Your task to perform on an android device: turn on data saver in the chrome app Image 0: 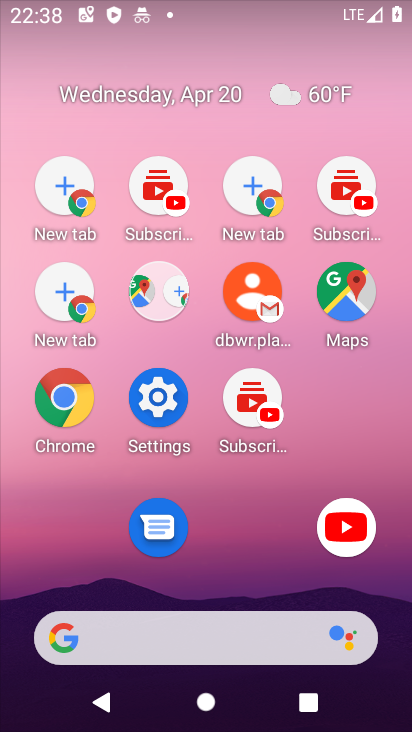
Step 0: drag from (351, 595) to (225, 107)
Your task to perform on an android device: turn on data saver in the chrome app Image 1: 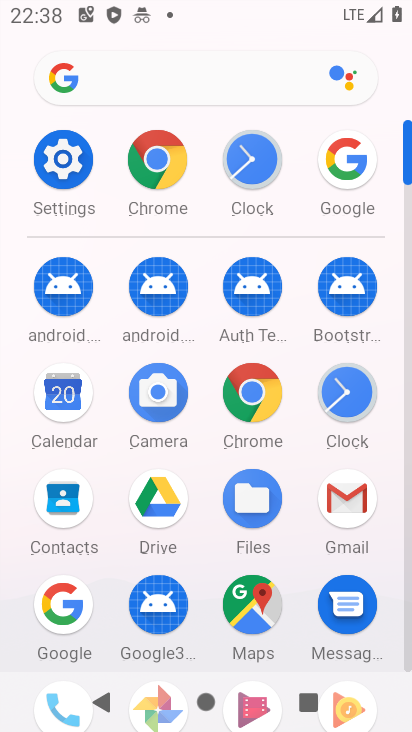
Step 1: click (253, 404)
Your task to perform on an android device: turn on data saver in the chrome app Image 2: 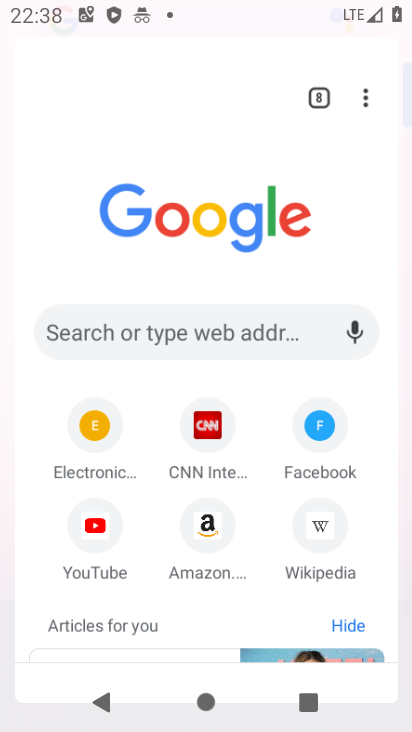
Step 2: click (255, 402)
Your task to perform on an android device: turn on data saver in the chrome app Image 3: 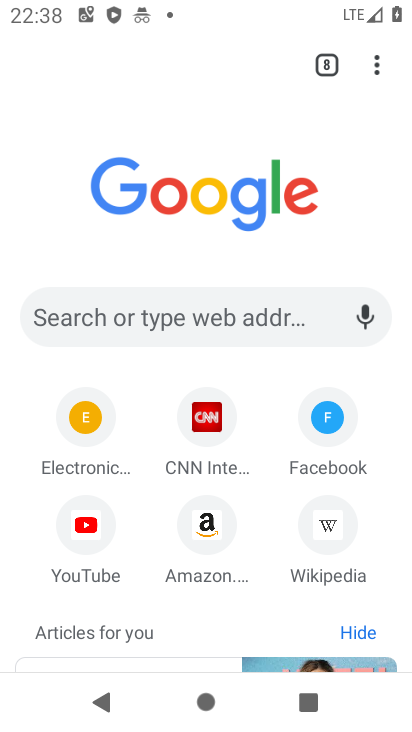
Step 3: click (255, 402)
Your task to perform on an android device: turn on data saver in the chrome app Image 4: 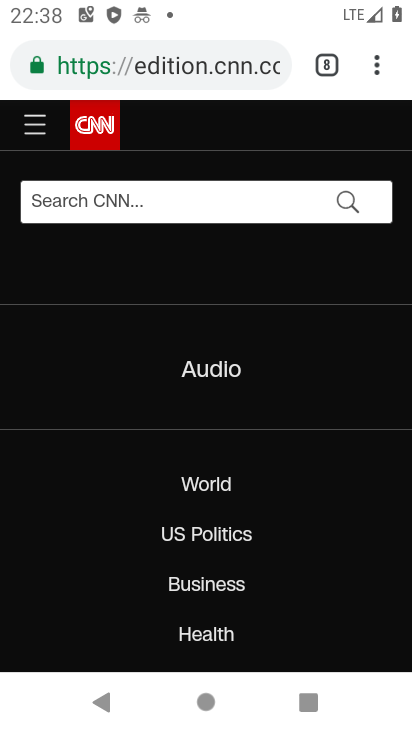
Step 4: drag from (372, 59) to (150, 571)
Your task to perform on an android device: turn on data saver in the chrome app Image 5: 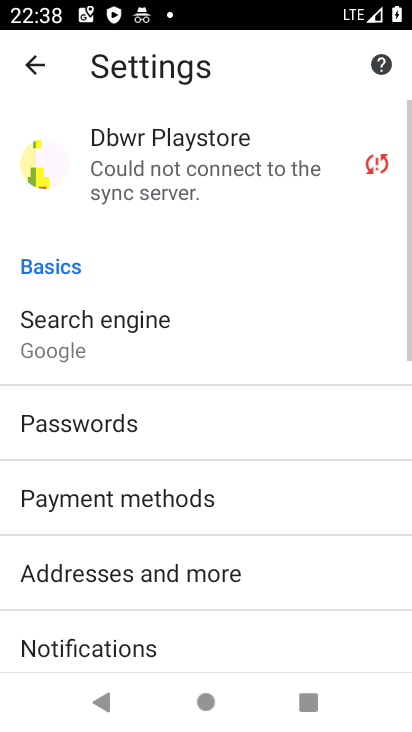
Step 5: drag from (161, 576) to (197, 174)
Your task to perform on an android device: turn on data saver in the chrome app Image 6: 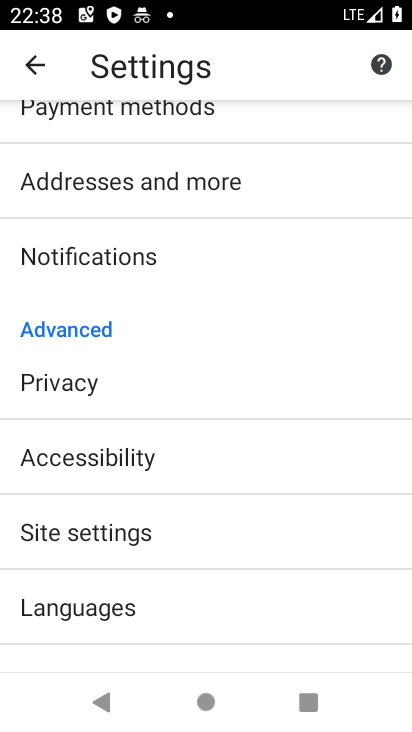
Step 6: drag from (189, 526) to (147, 162)
Your task to perform on an android device: turn on data saver in the chrome app Image 7: 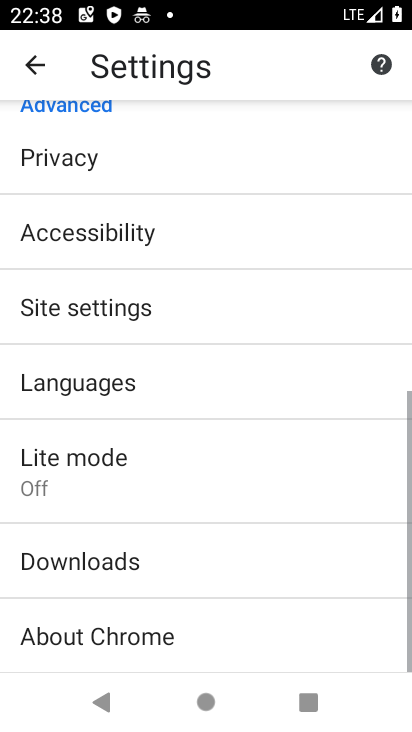
Step 7: click (68, 468)
Your task to perform on an android device: turn on data saver in the chrome app Image 8: 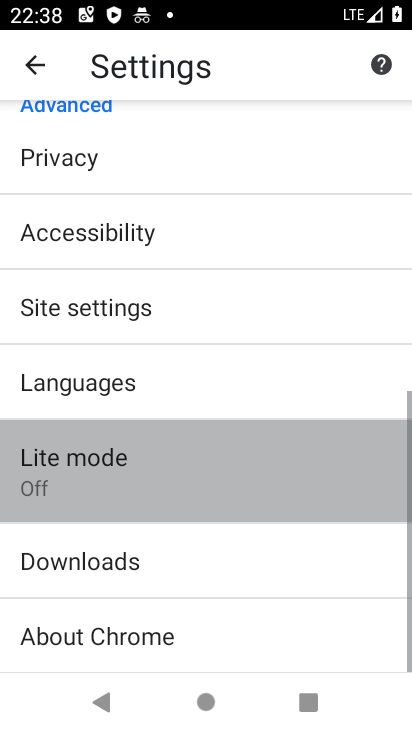
Step 8: click (68, 467)
Your task to perform on an android device: turn on data saver in the chrome app Image 9: 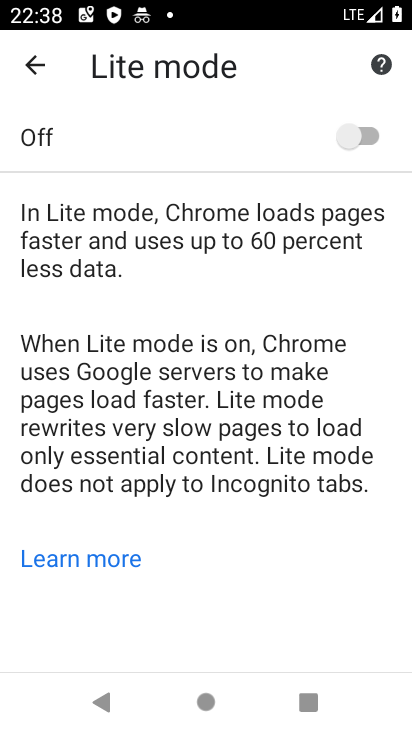
Step 9: click (356, 132)
Your task to perform on an android device: turn on data saver in the chrome app Image 10: 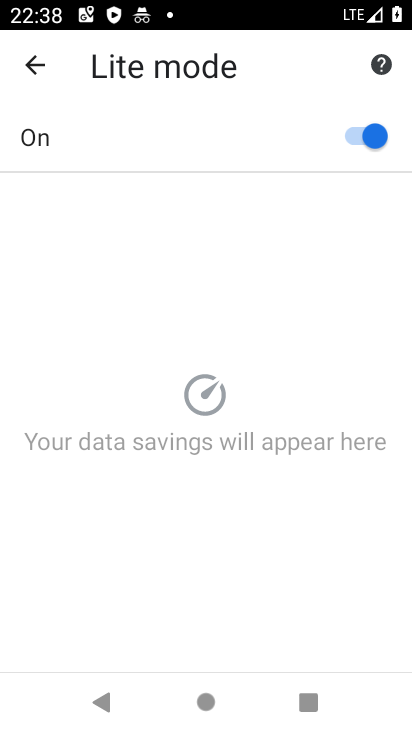
Step 10: task complete